Your task to perform on an android device: remove spam from my inbox in the gmail app Image 0: 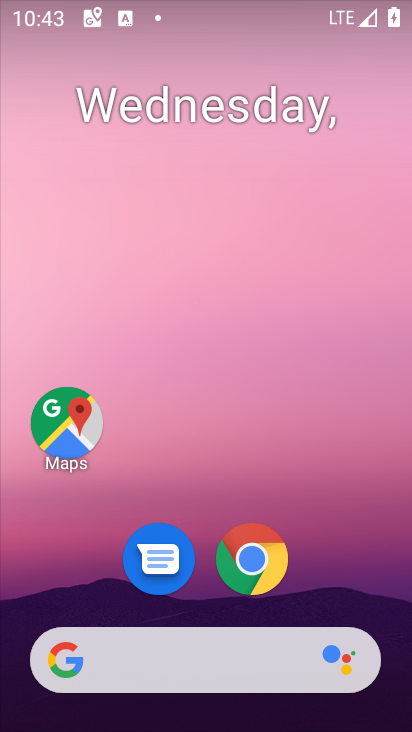
Step 0: drag from (209, 590) to (209, 24)
Your task to perform on an android device: remove spam from my inbox in the gmail app Image 1: 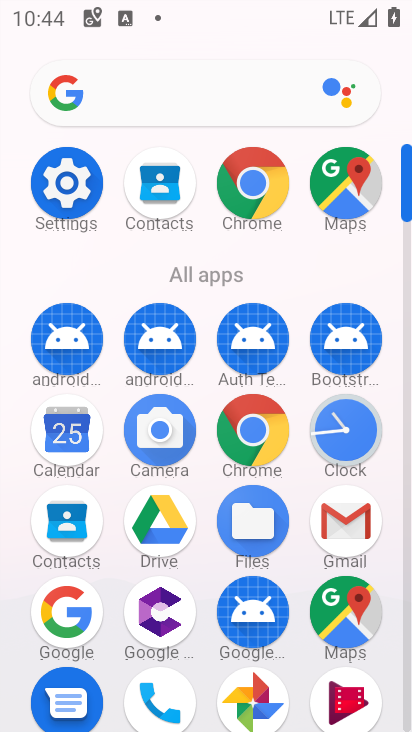
Step 1: click (367, 542)
Your task to perform on an android device: remove spam from my inbox in the gmail app Image 2: 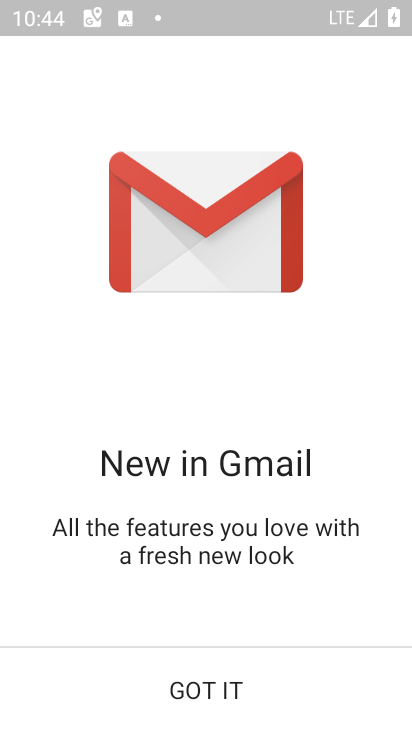
Step 2: click (237, 684)
Your task to perform on an android device: remove spam from my inbox in the gmail app Image 3: 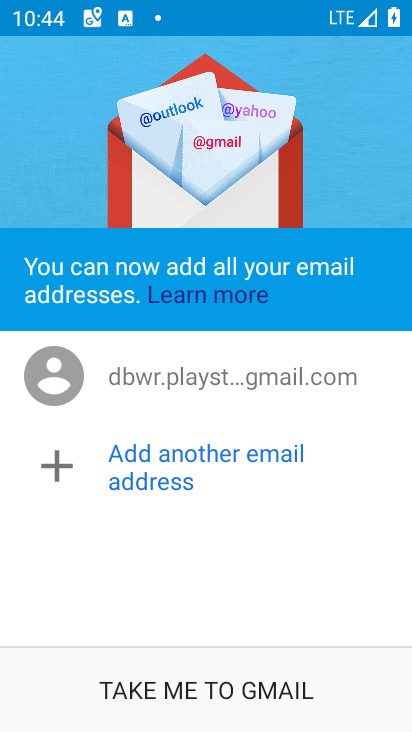
Step 3: click (229, 704)
Your task to perform on an android device: remove spam from my inbox in the gmail app Image 4: 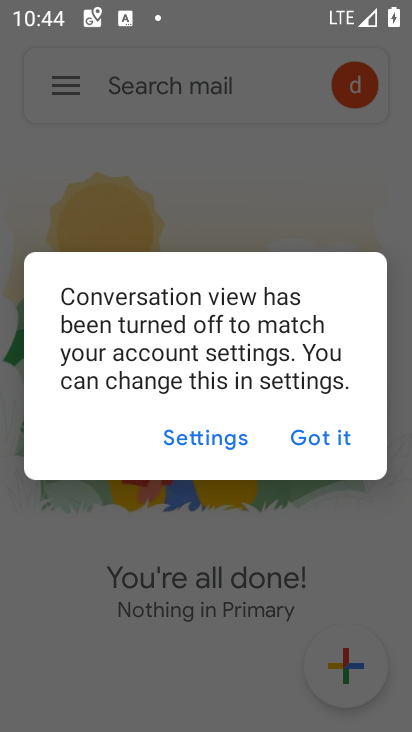
Step 4: click (328, 447)
Your task to perform on an android device: remove spam from my inbox in the gmail app Image 5: 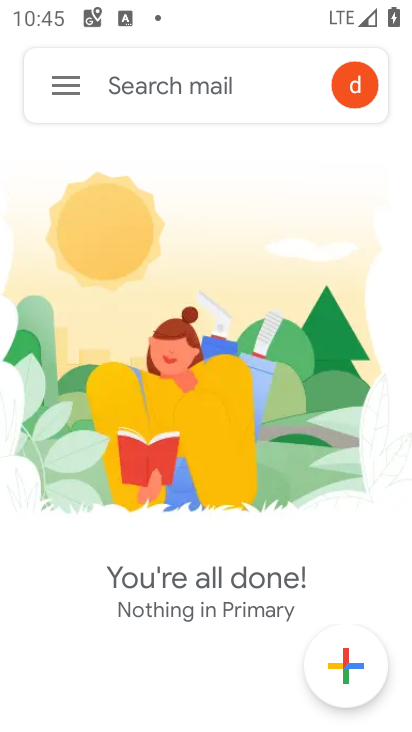
Step 5: task complete